Your task to perform on an android device: turn off translation in the chrome app Image 0: 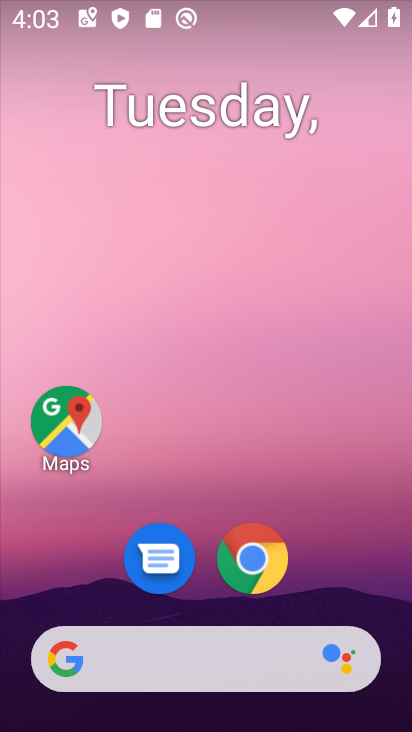
Step 0: click (257, 582)
Your task to perform on an android device: turn off translation in the chrome app Image 1: 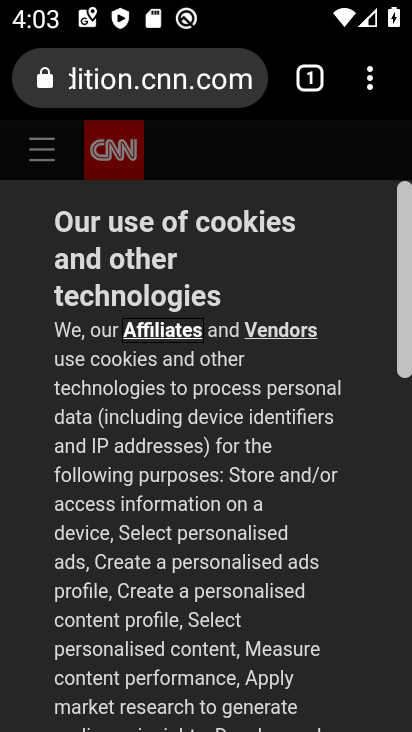
Step 1: drag from (370, 86) to (249, 614)
Your task to perform on an android device: turn off translation in the chrome app Image 2: 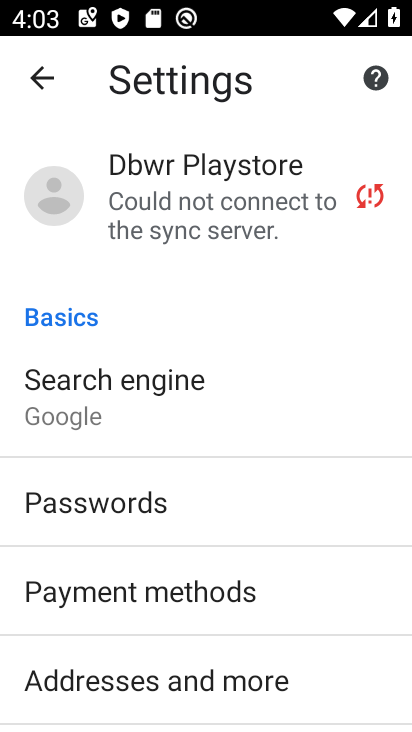
Step 2: drag from (249, 722) to (396, 267)
Your task to perform on an android device: turn off translation in the chrome app Image 3: 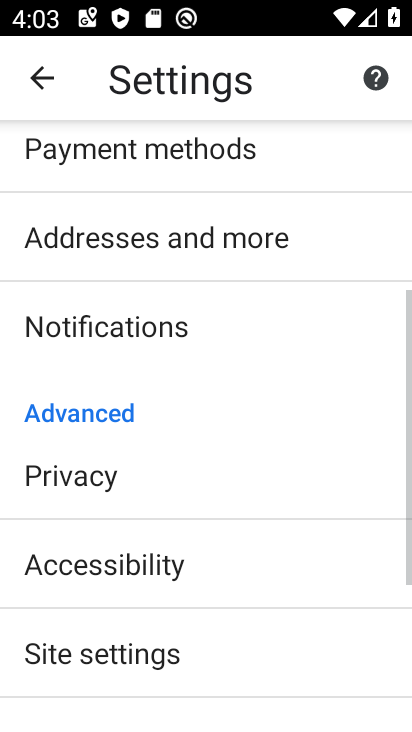
Step 3: drag from (203, 645) to (328, 270)
Your task to perform on an android device: turn off translation in the chrome app Image 4: 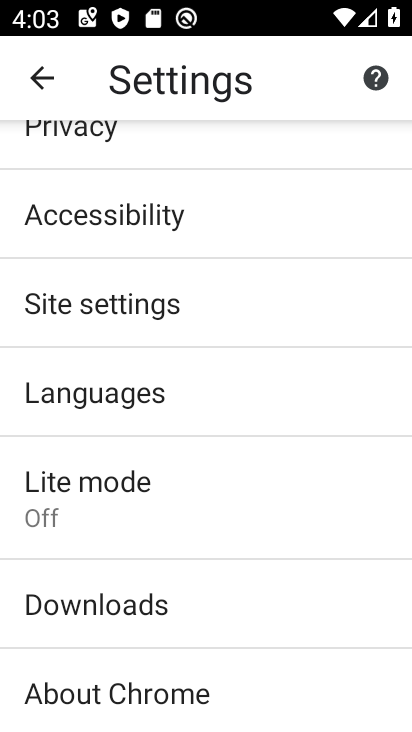
Step 4: click (187, 402)
Your task to perform on an android device: turn off translation in the chrome app Image 5: 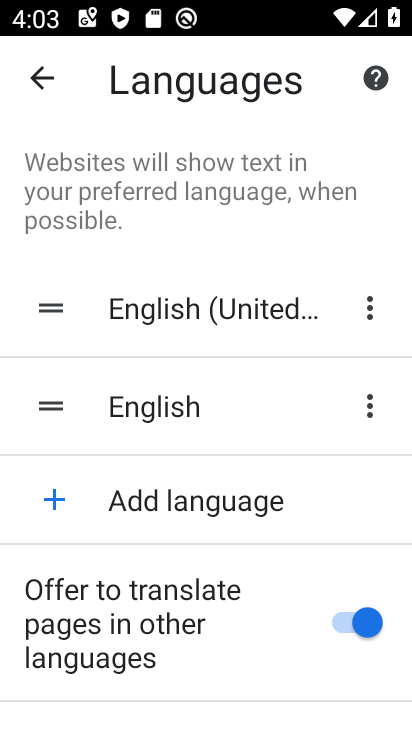
Step 5: drag from (170, 628) to (219, 438)
Your task to perform on an android device: turn off translation in the chrome app Image 6: 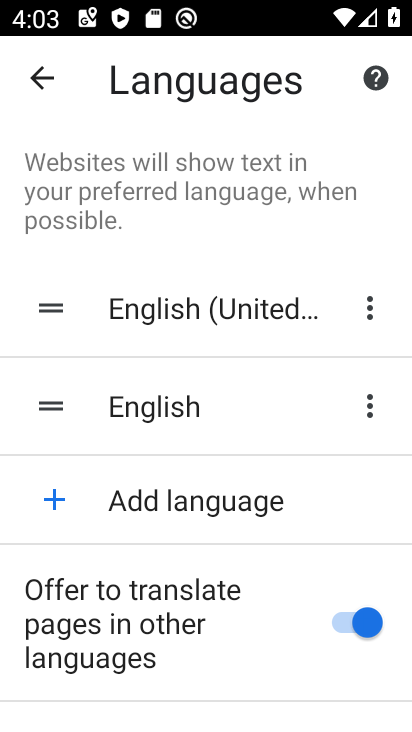
Step 6: click (341, 622)
Your task to perform on an android device: turn off translation in the chrome app Image 7: 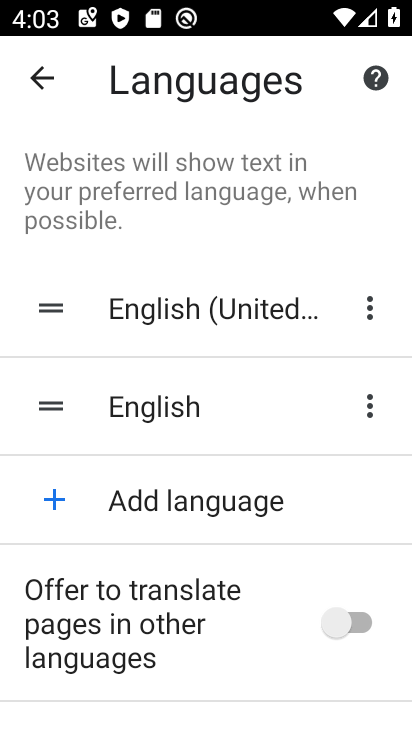
Step 7: task complete